Your task to perform on an android device: Open the phone app and click the voicemail tab. Image 0: 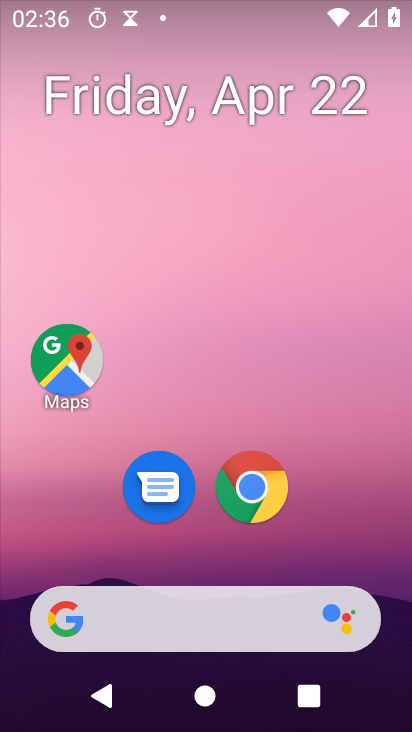
Step 0: drag from (187, 605) to (333, 136)
Your task to perform on an android device: Open the phone app and click the voicemail tab. Image 1: 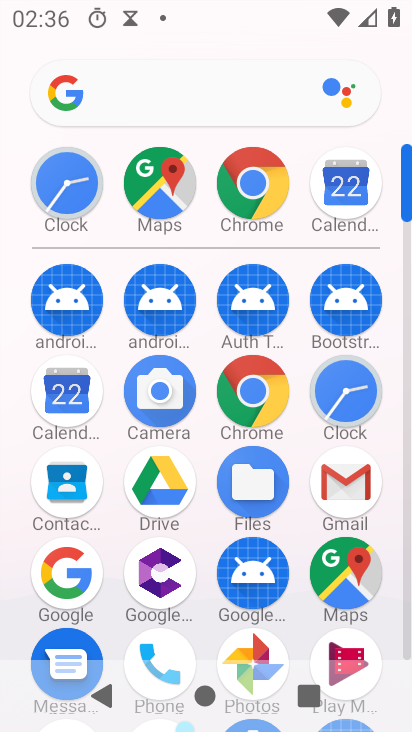
Step 1: drag from (114, 549) to (214, 298)
Your task to perform on an android device: Open the phone app and click the voicemail tab. Image 2: 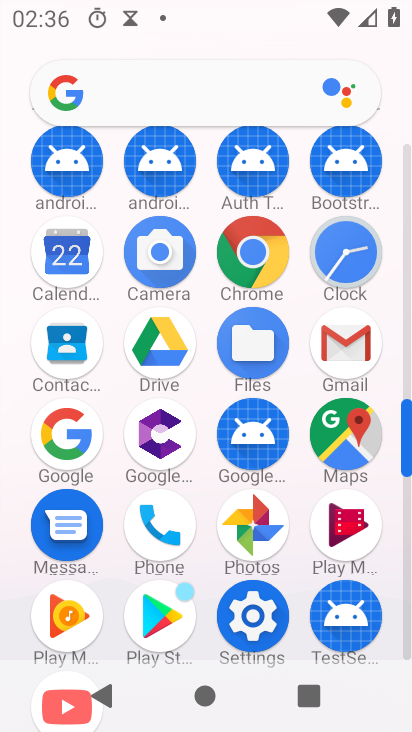
Step 2: click (166, 529)
Your task to perform on an android device: Open the phone app and click the voicemail tab. Image 3: 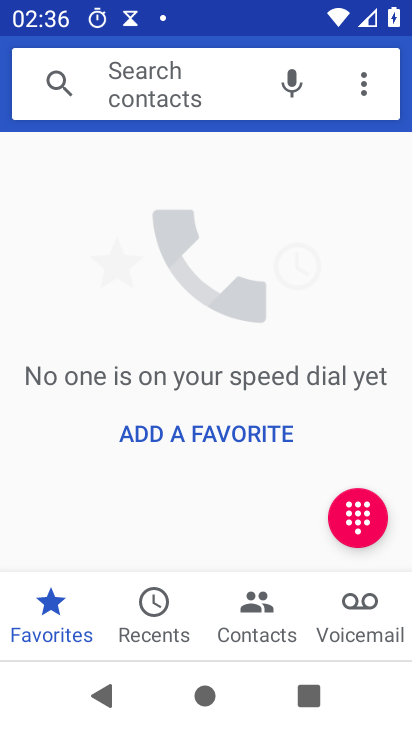
Step 3: click (356, 620)
Your task to perform on an android device: Open the phone app and click the voicemail tab. Image 4: 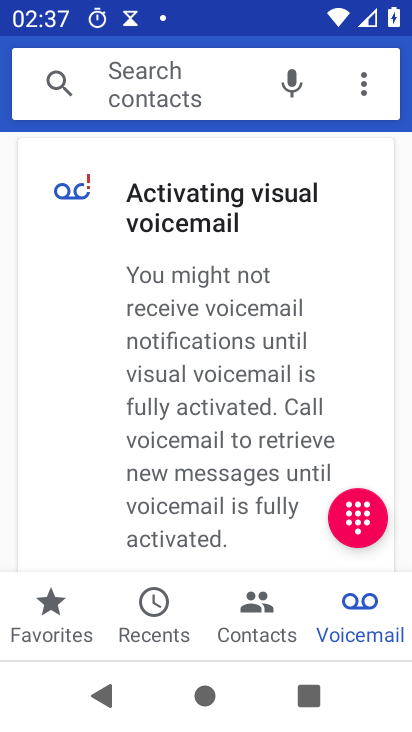
Step 4: task complete